Your task to perform on an android device: find photos in the google photos app Image 0: 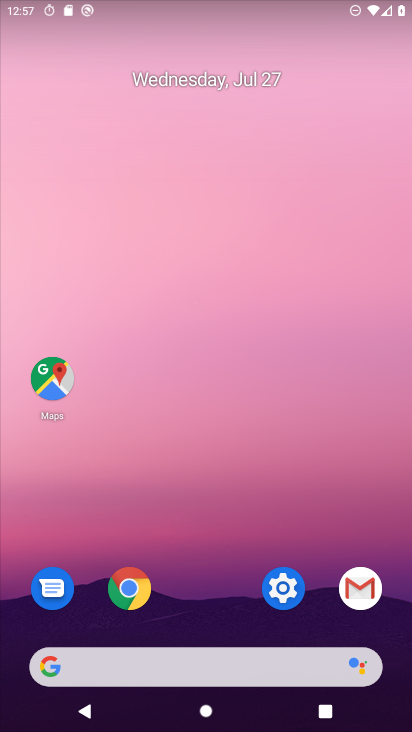
Step 0: drag from (303, 680) to (245, 188)
Your task to perform on an android device: find photos in the google photos app Image 1: 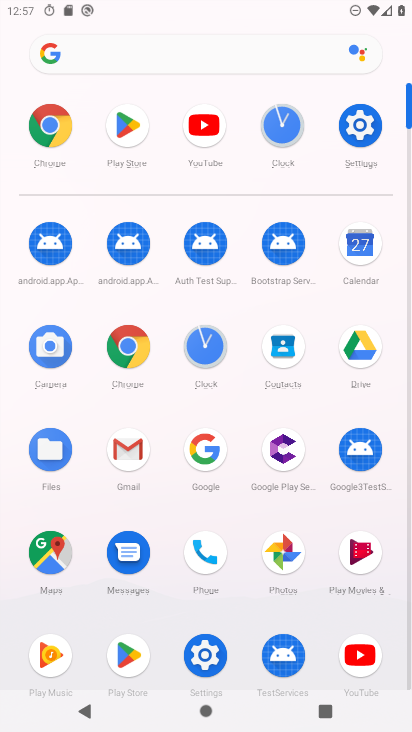
Step 1: click (281, 547)
Your task to perform on an android device: find photos in the google photos app Image 2: 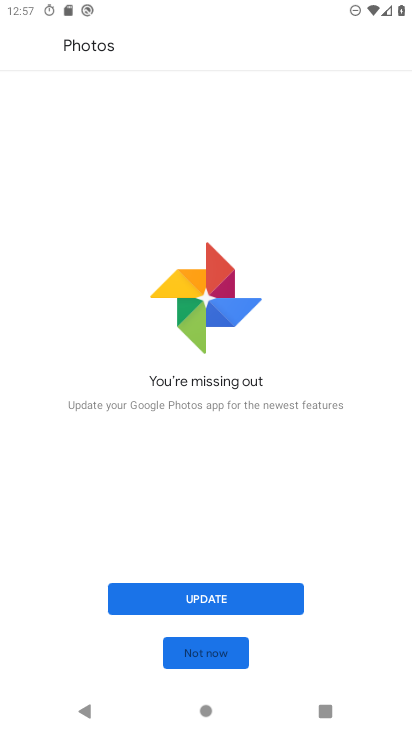
Step 2: click (227, 604)
Your task to perform on an android device: find photos in the google photos app Image 3: 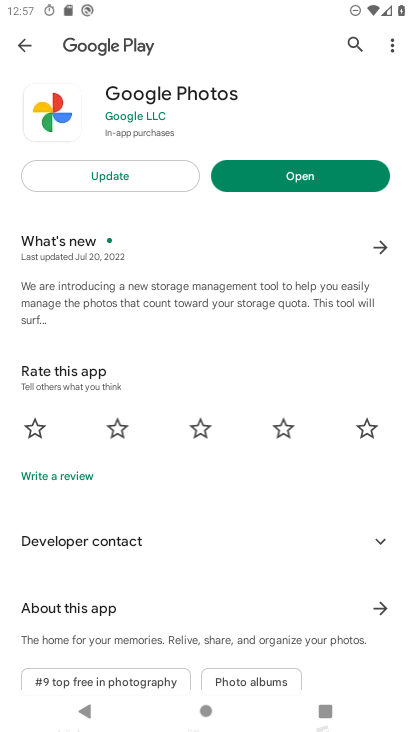
Step 3: click (274, 180)
Your task to perform on an android device: find photos in the google photos app Image 4: 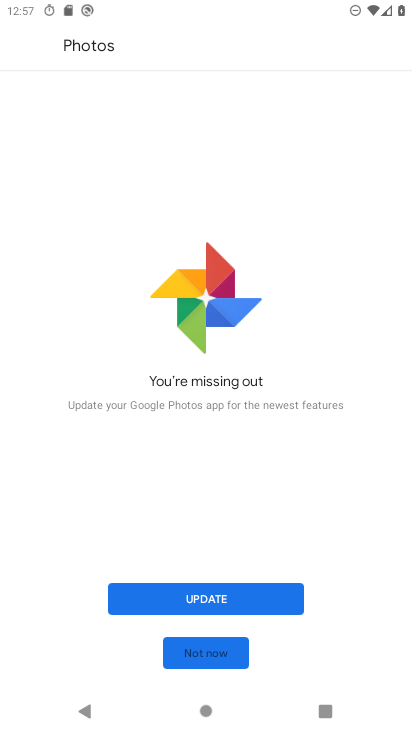
Step 4: click (228, 595)
Your task to perform on an android device: find photos in the google photos app Image 5: 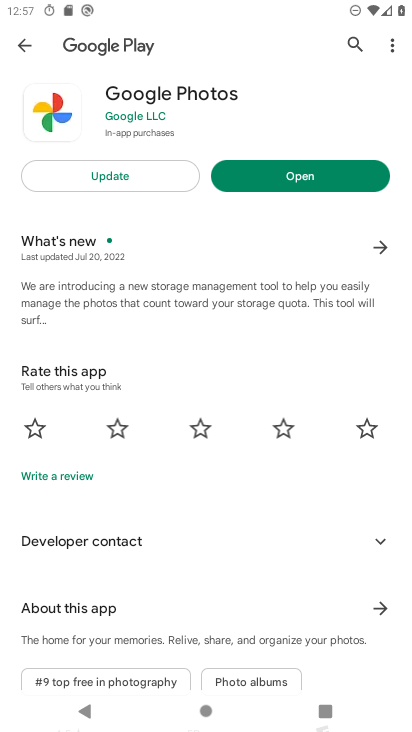
Step 5: click (87, 177)
Your task to perform on an android device: find photos in the google photos app Image 6: 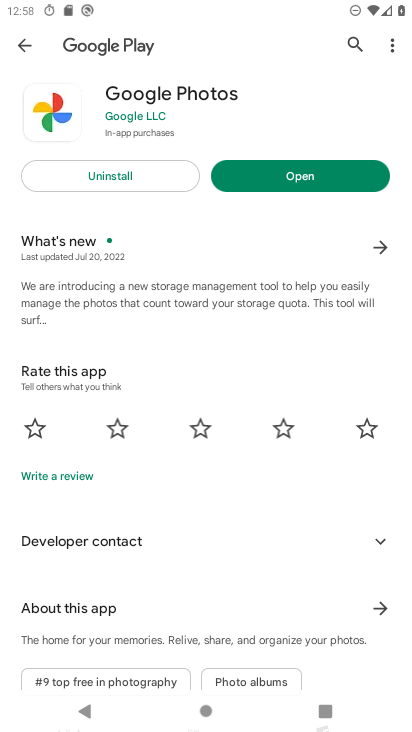
Step 6: click (281, 179)
Your task to perform on an android device: find photos in the google photos app Image 7: 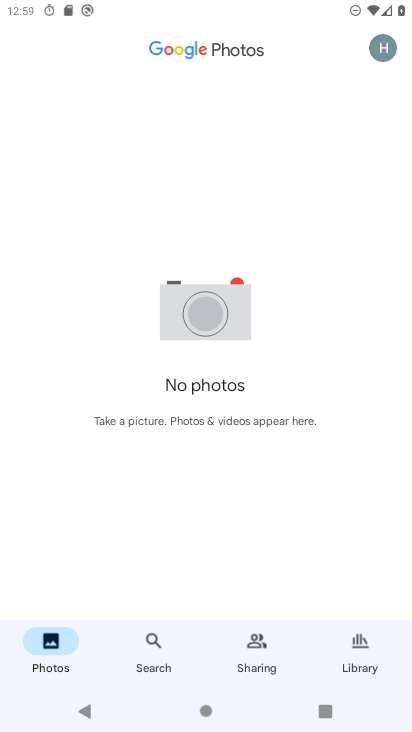
Step 7: task complete